Your task to perform on an android device: Go to Yahoo.com Image 0: 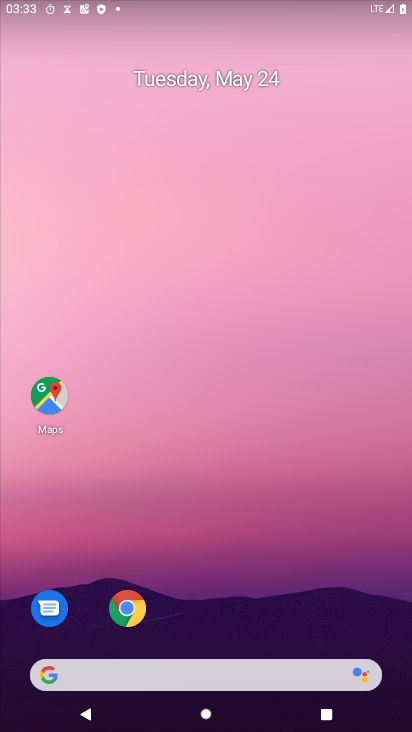
Step 0: click (133, 605)
Your task to perform on an android device: Go to Yahoo.com Image 1: 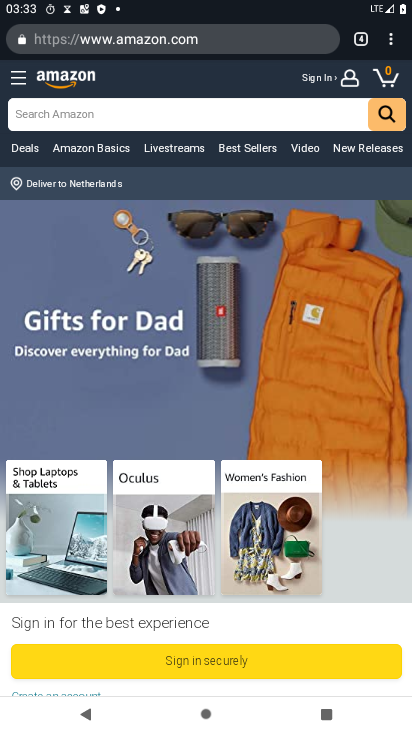
Step 1: click (364, 36)
Your task to perform on an android device: Go to Yahoo.com Image 2: 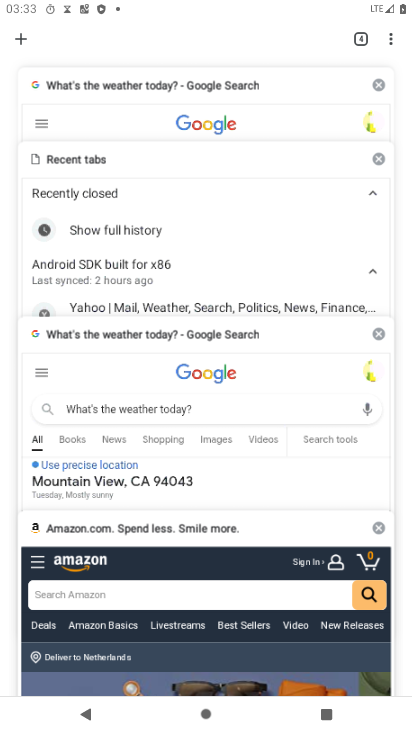
Step 2: click (34, 45)
Your task to perform on an android device: Go to Yahoo.com Image 3: 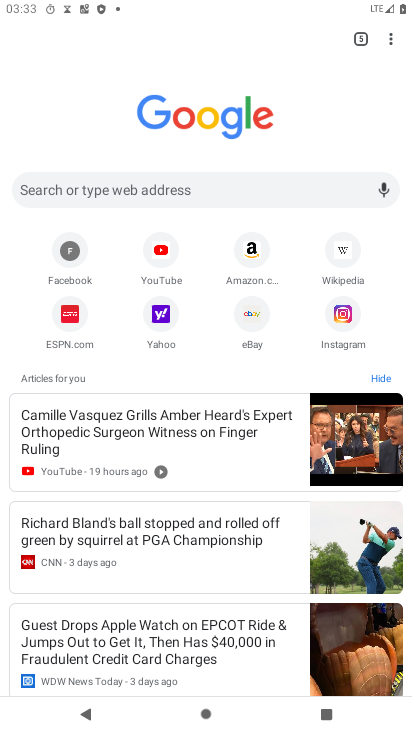
Step 3: click (155, 322)
Your task to perform on an android device: Go to Yahoo.com Image 4: 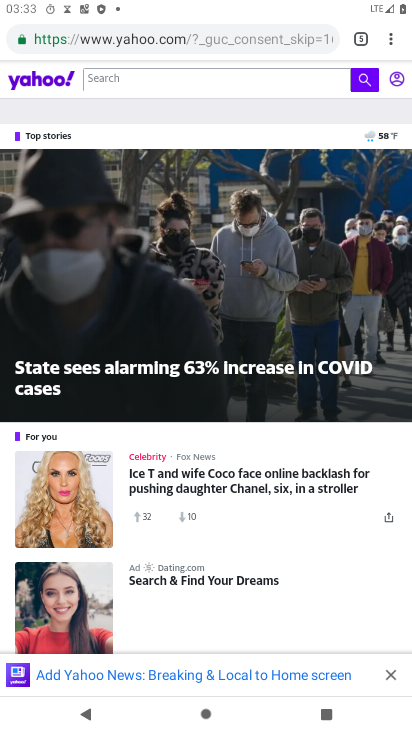
Step 4: task complete